Your task to perform on an android device: open app "Facebook" (install if not already installed) Image 0: 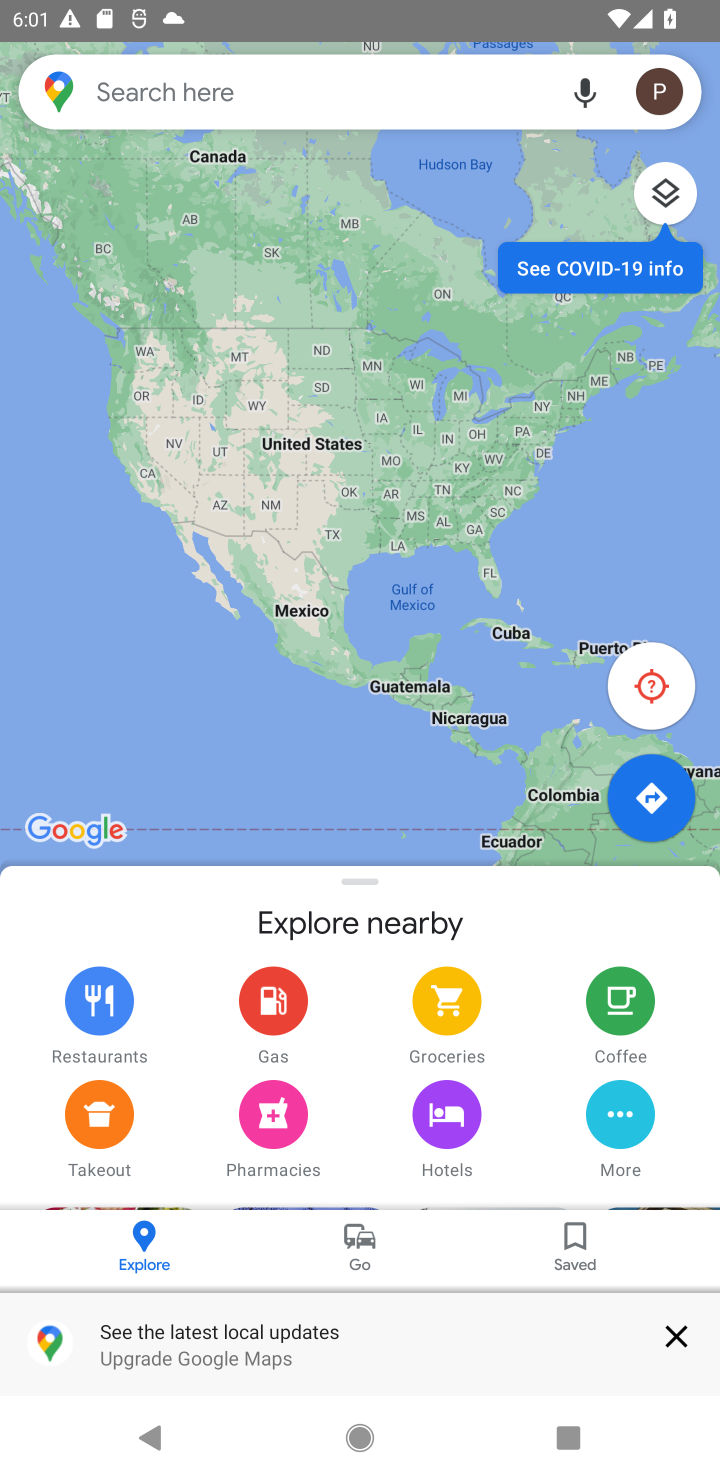
Step 0: press home button
Your task to perform on an android device: open app "Facebook" (install if not already installed) Image 1: 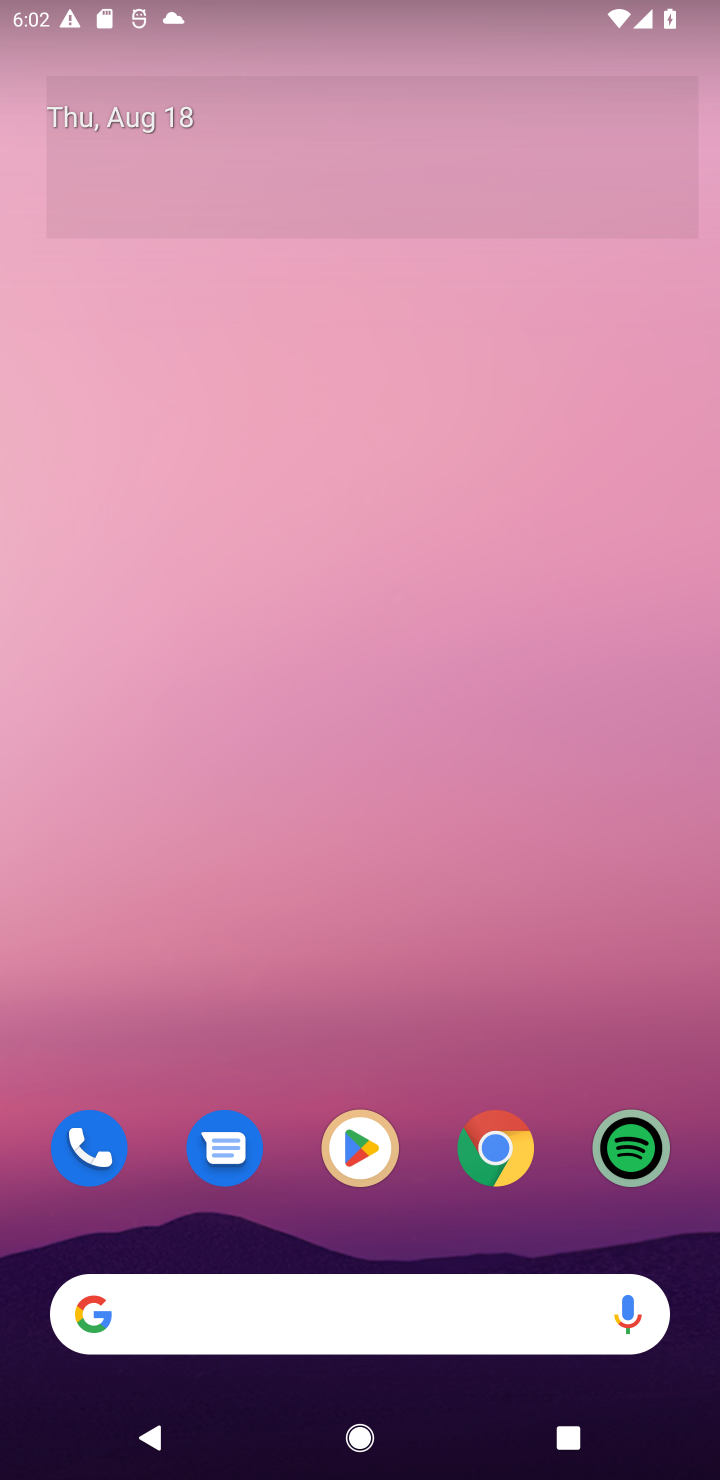
Step 1: drag from (385, 1146) to (226, 139)
Your task to perform on an android device: open app "Facebook" (install if not already installed) Image 2: 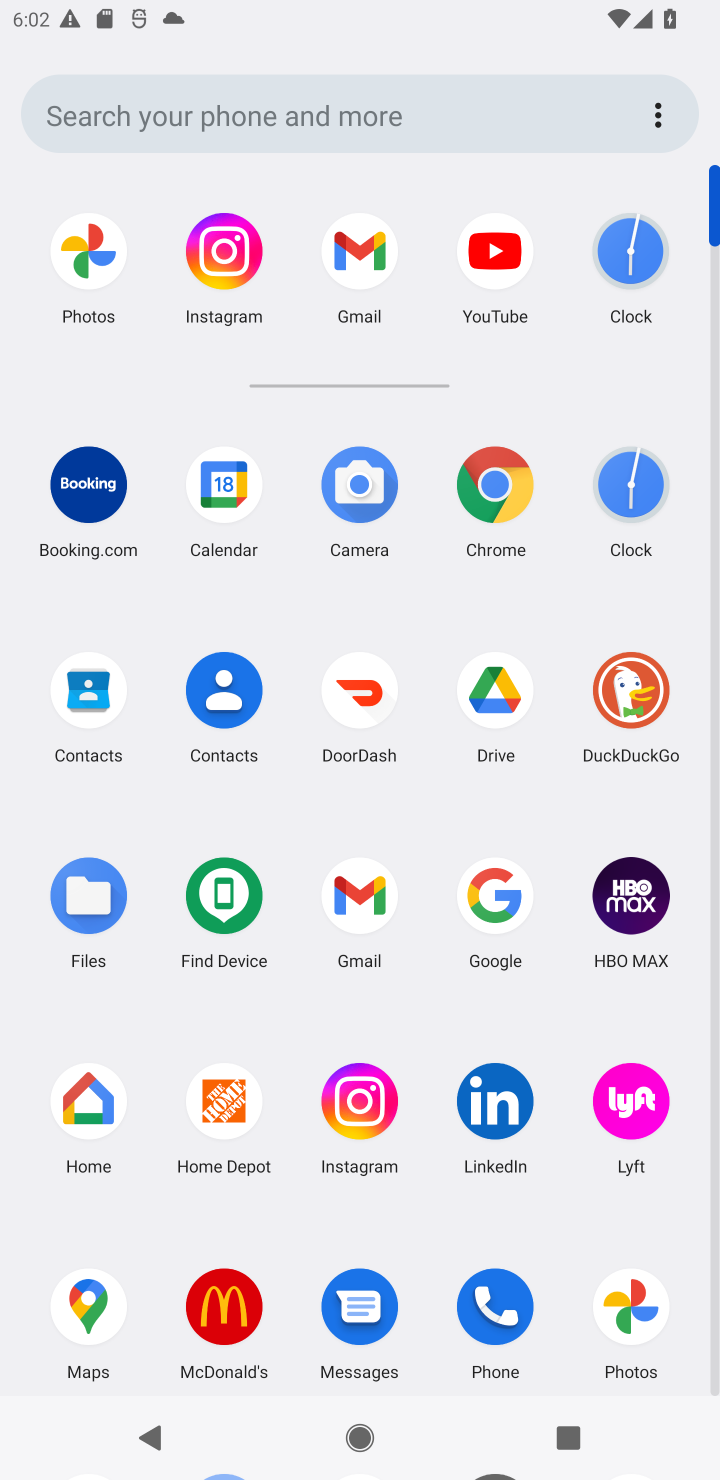
Step 2: drag from (606, 1239) to (441, 481)
Your task to perform on an android device: open app "Facebook" (install if not already installed) Image 3: 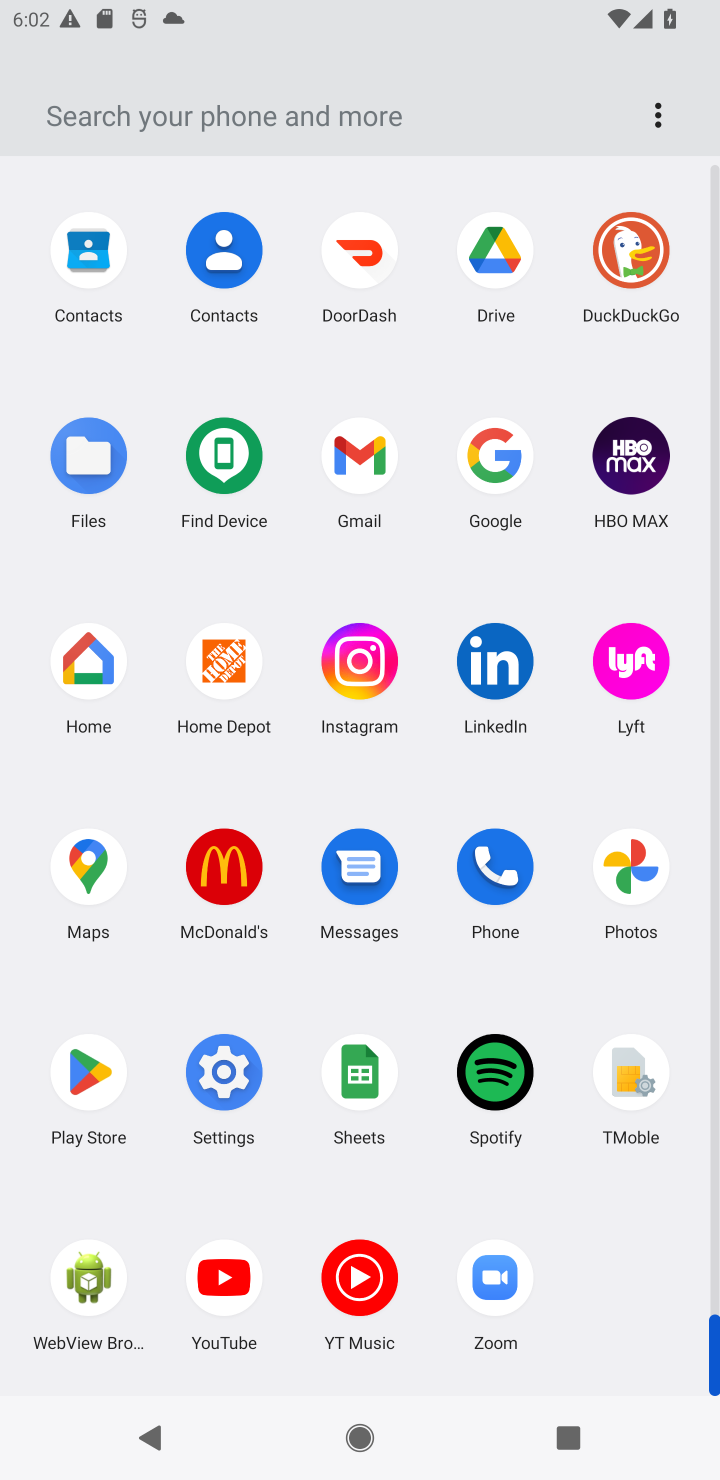
Step 3: click (80, 1086)
Your task to perform on an android device: open app "Facebook" (install if not already installed) Image 4: 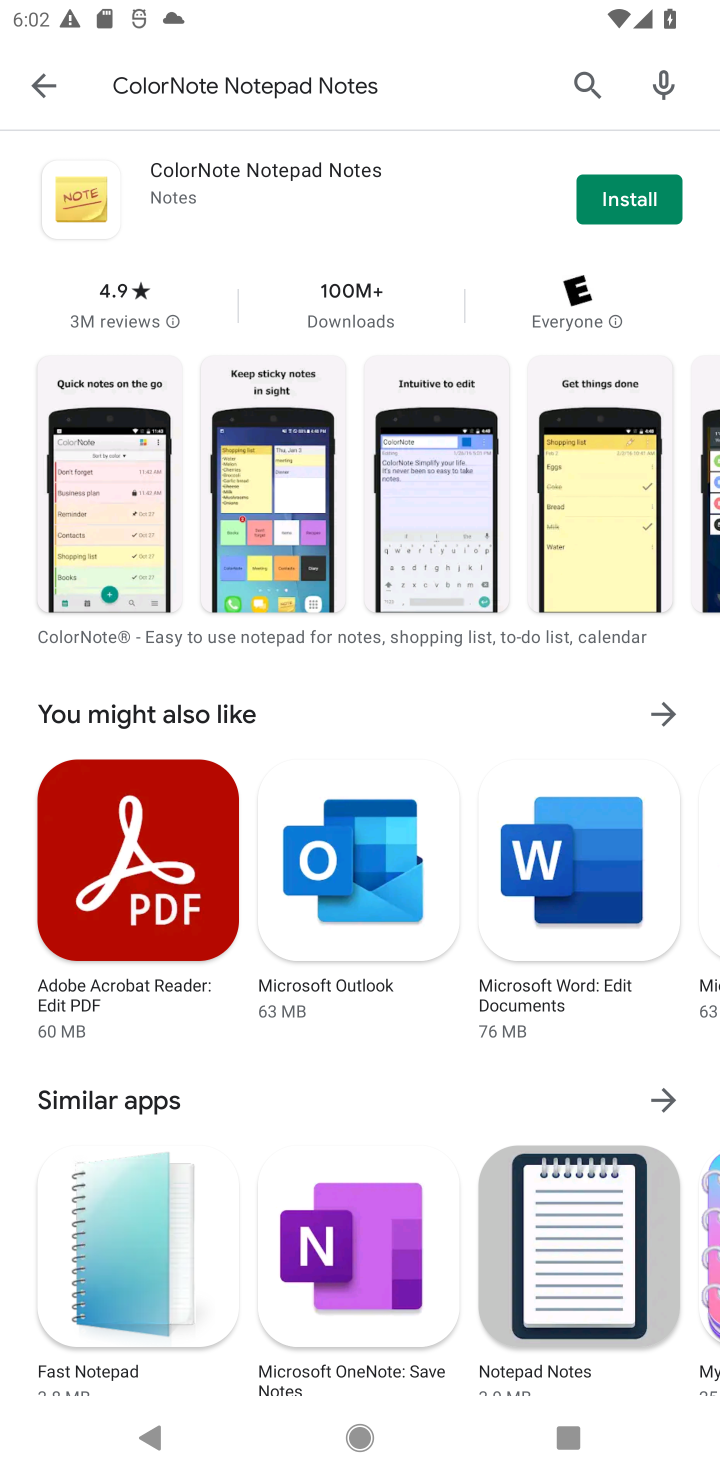
Step 4: press back button
Your task to perform on an android device: open app "Facebook" (install if not already installed) Image 5: 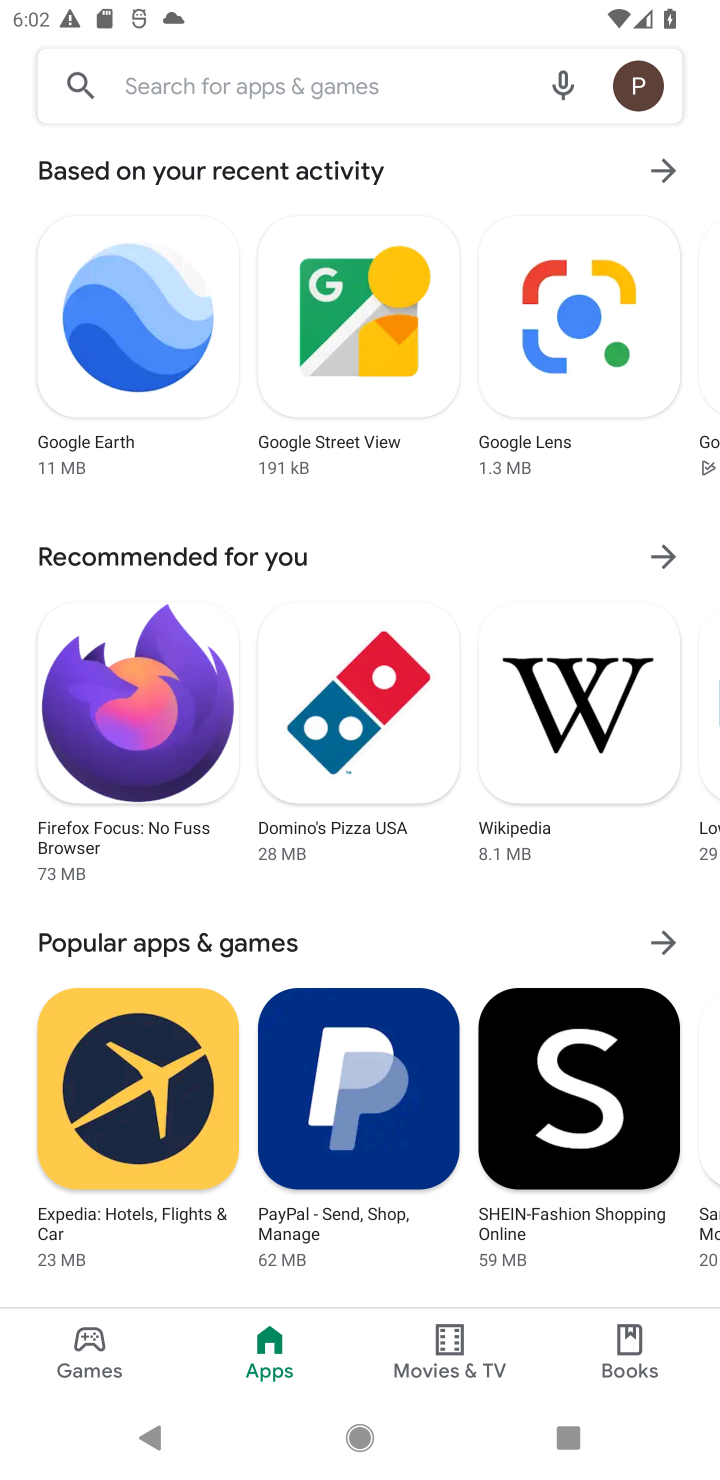
Step 5: click (254, 91)
Your task to perform on an android device: open app "Facebook" (install if not already installed) Image 6: 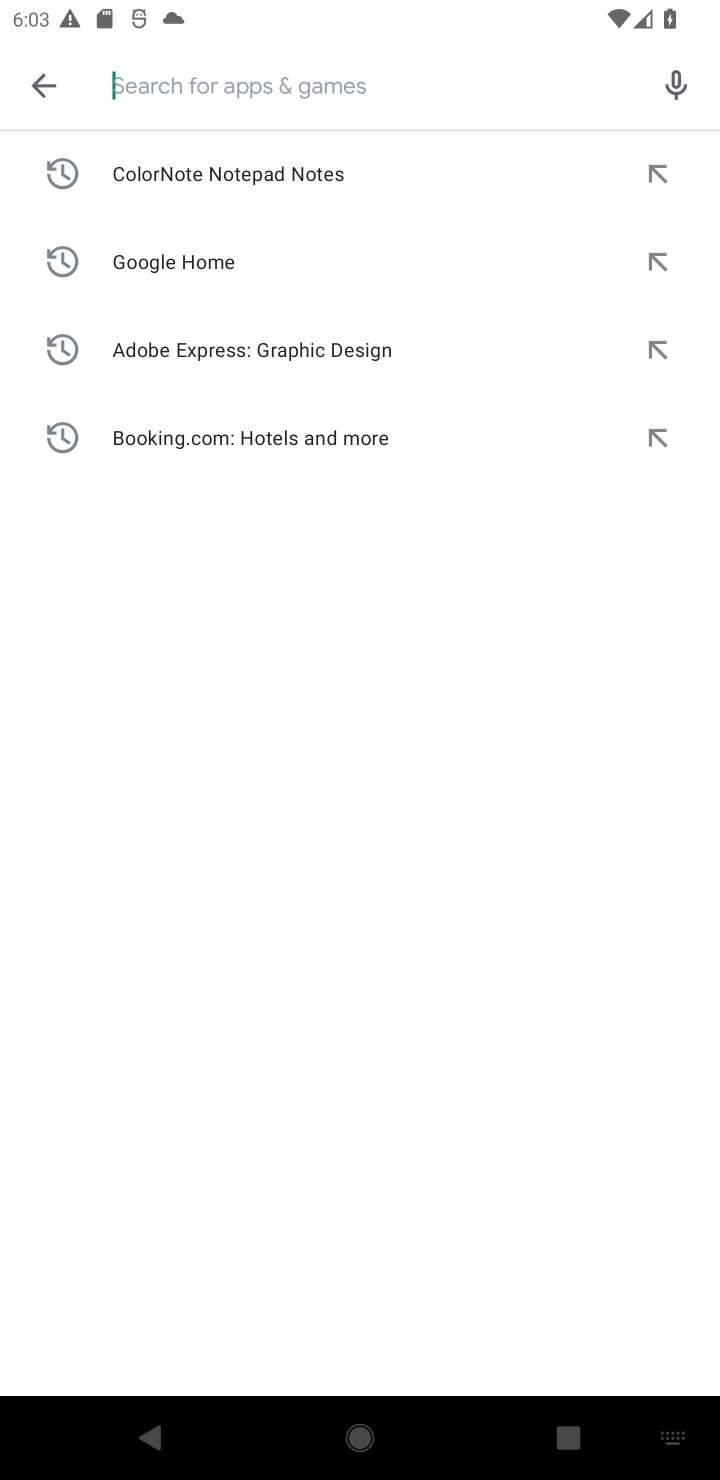
Step 6: type "Facebook"
Your task to perform on an android device: open app "Facebook" (install if not already installed) Image 7: 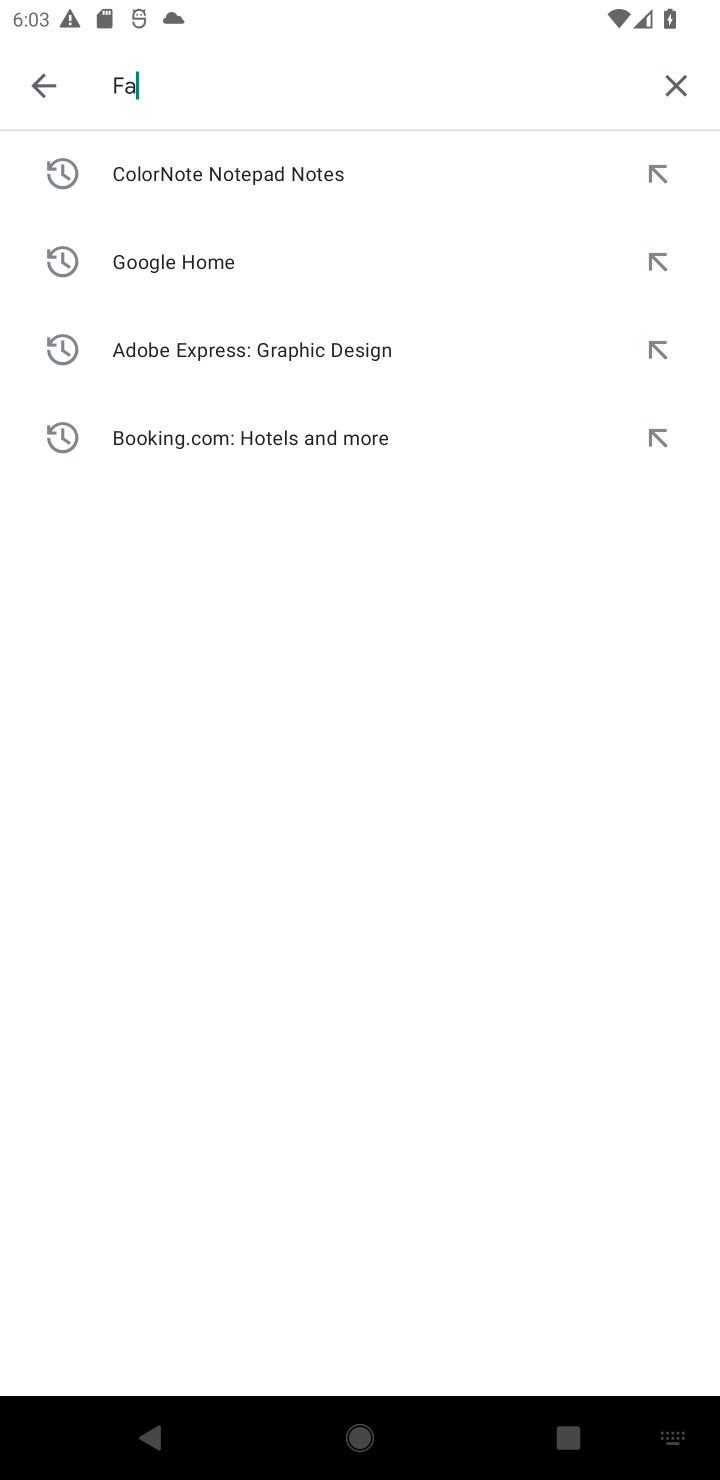
Step 7: press enter
Your task to perform on an android device: open app "Facebook" (install if not already installed) Image 8: 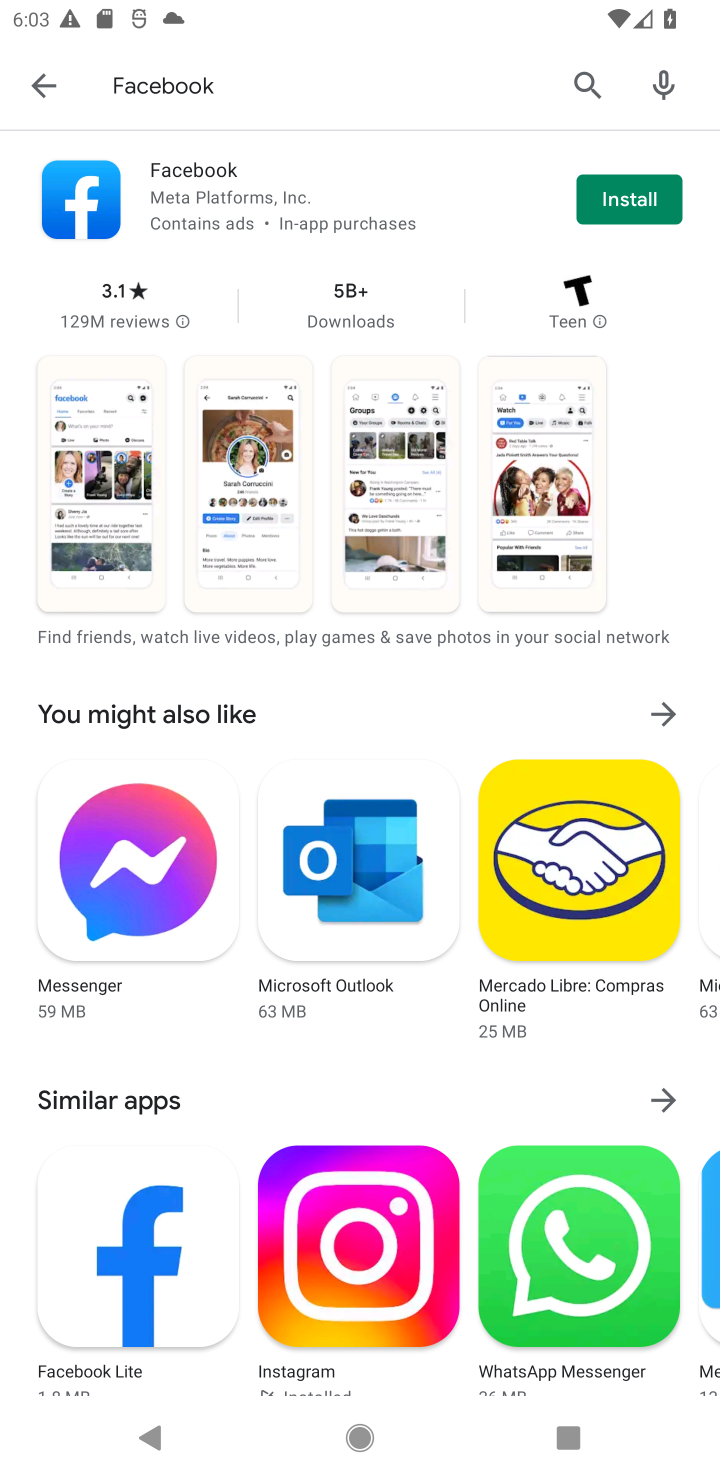
Step 8: click (636, 208)
Your task to perform on an android device: open app "Facebook" (install if not already installed) Image 9: 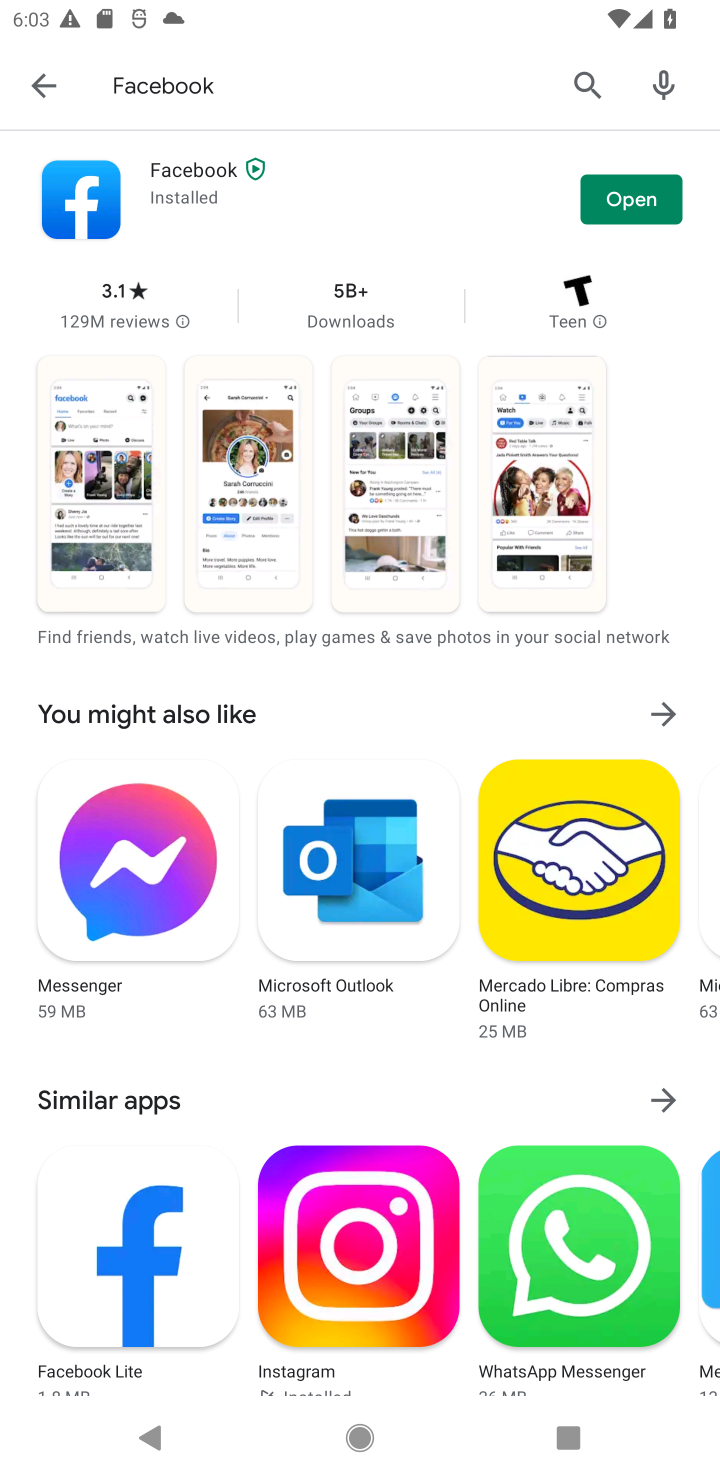
Step 9: click (636, 210)
Your task to perform on an android device: open app "Facebook" (install if not already installed) Image 10: 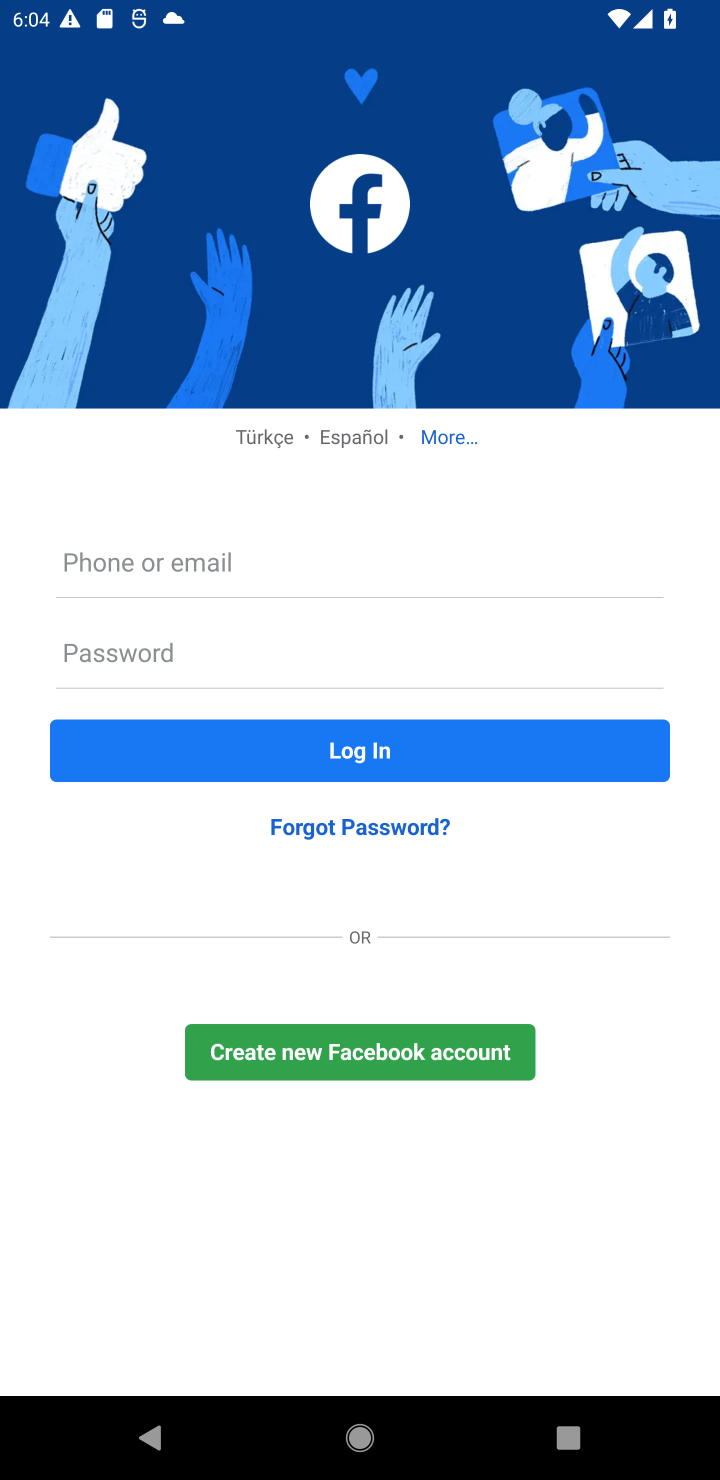
Step 10: task complete